Your task to perform on an android device: Show the shopping cart on amazon. Image 0: 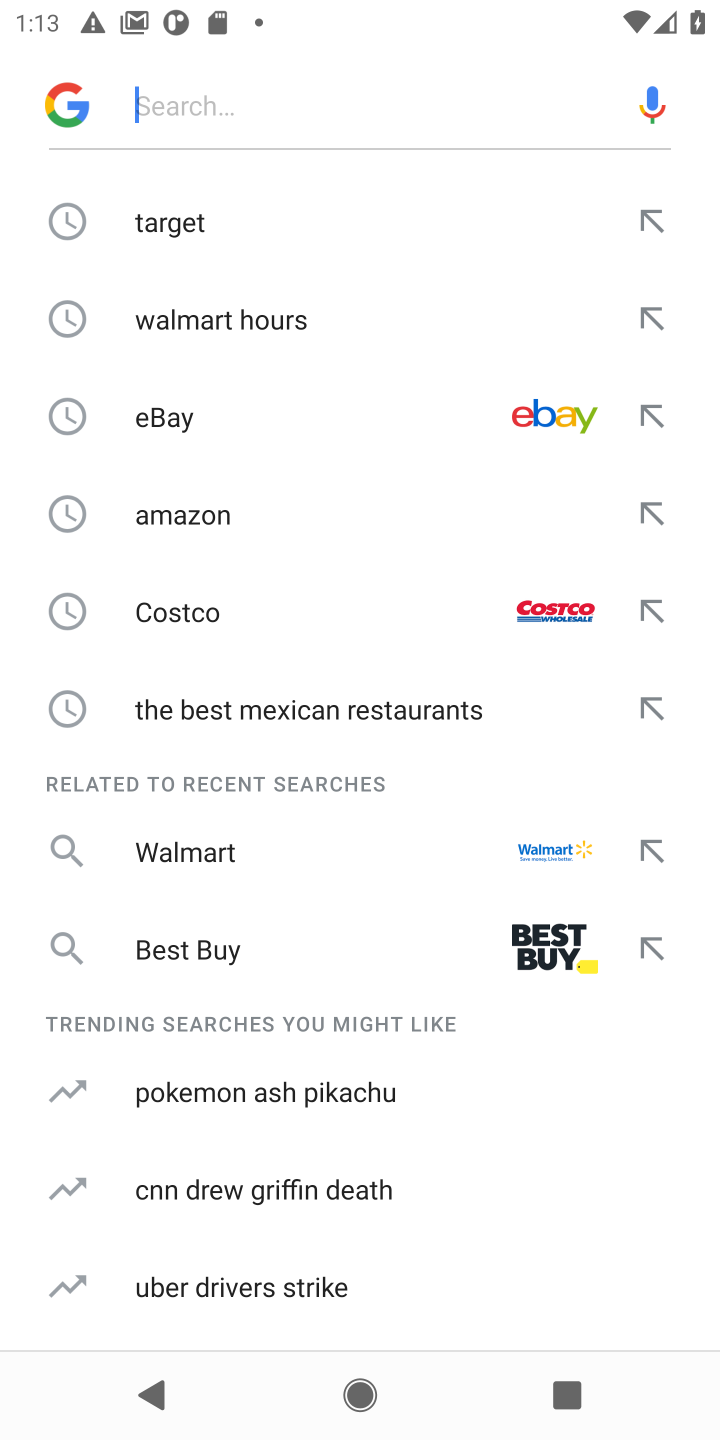
Step 0: click (302, 524)
Your task to perform on an android device: Show the shopping cart on amazon. Image 1: 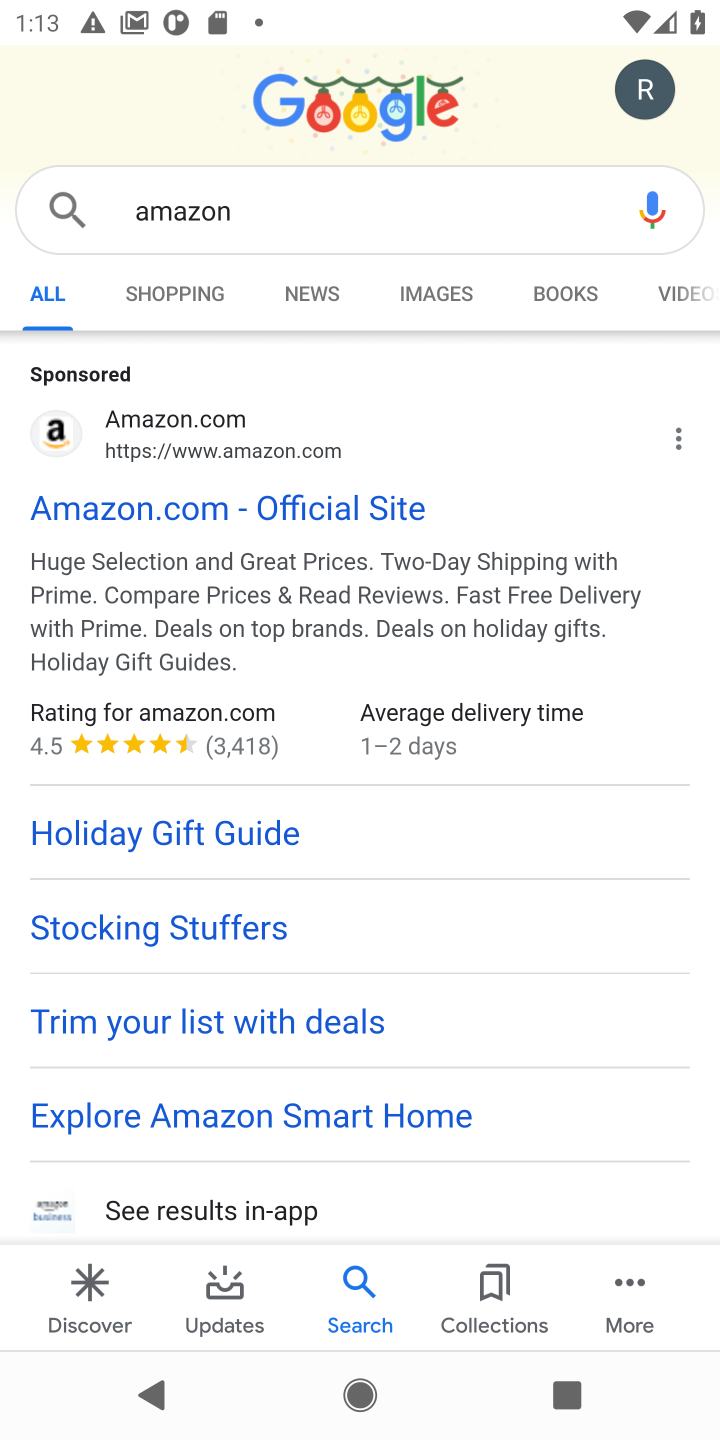
Step 1: click (232, 518)
Your task to perform on an android device: Show the shopping cart on amazon. Image 2: 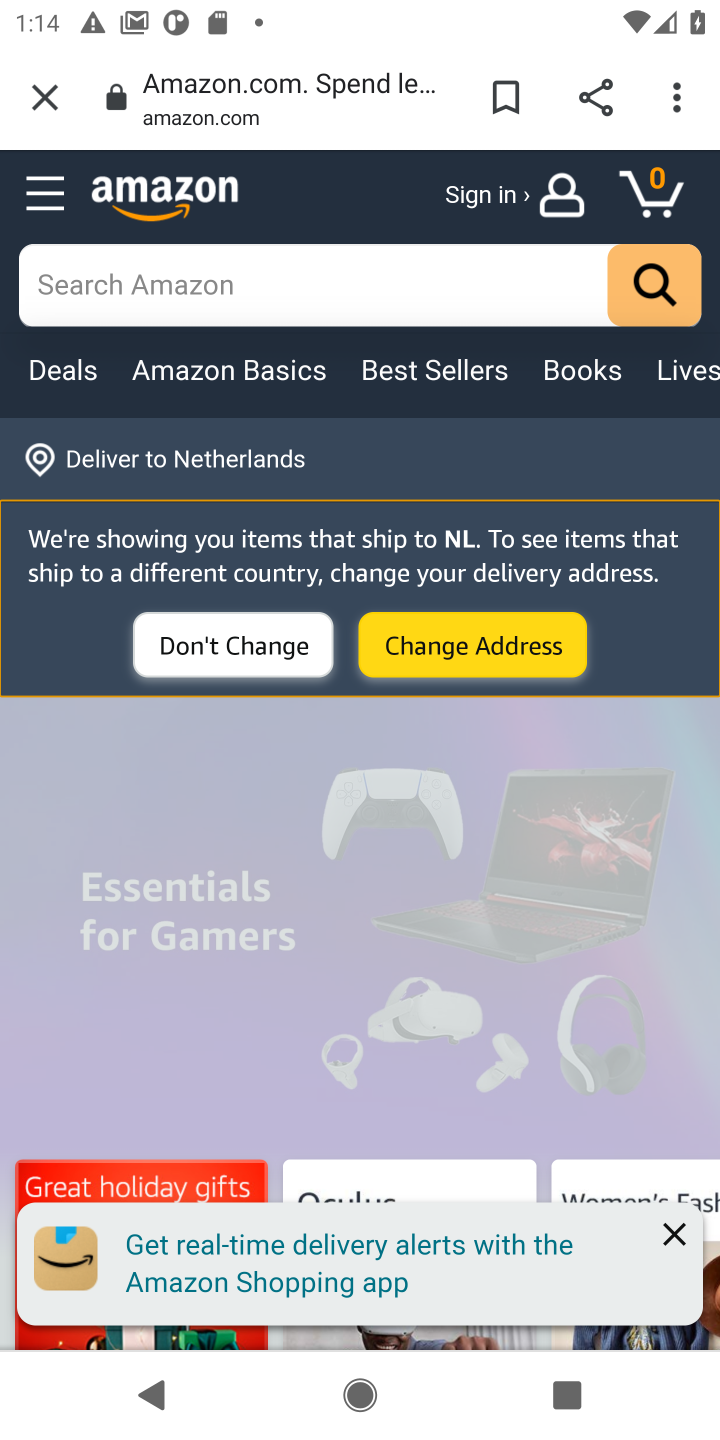
Step 2: task complete